Your task to perform on an android device: Search for vegetarian restaurants on Maps Image 0: 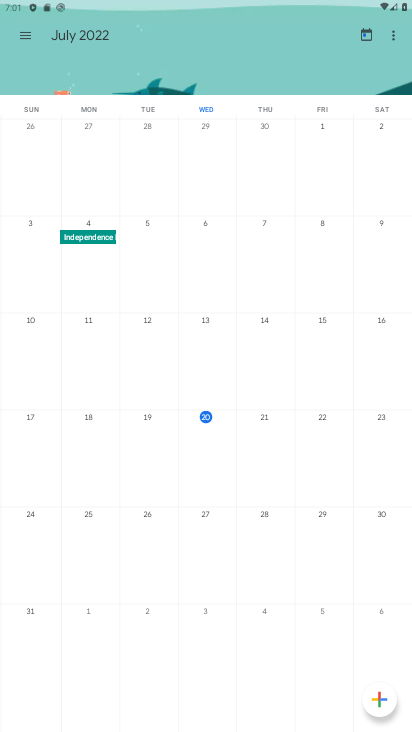
Step 0: press home button
Your task to perform on an android device: Search for vegetarian restaurants on Maps Image 1: 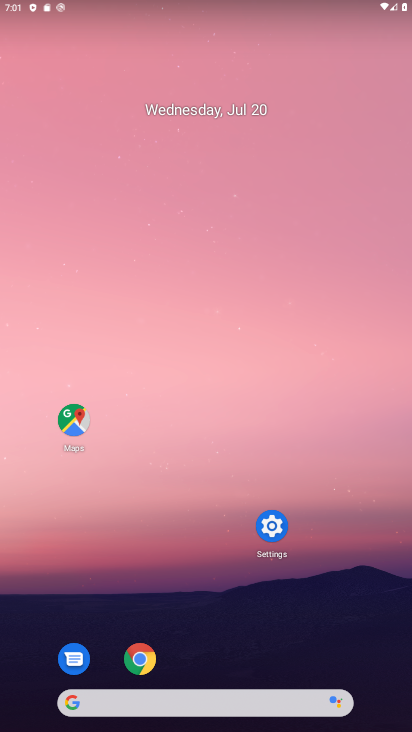
Step 1: click (58, 421)
Your task to perform on an android device: Search for vegetarian restaurants on Maps Image 2: 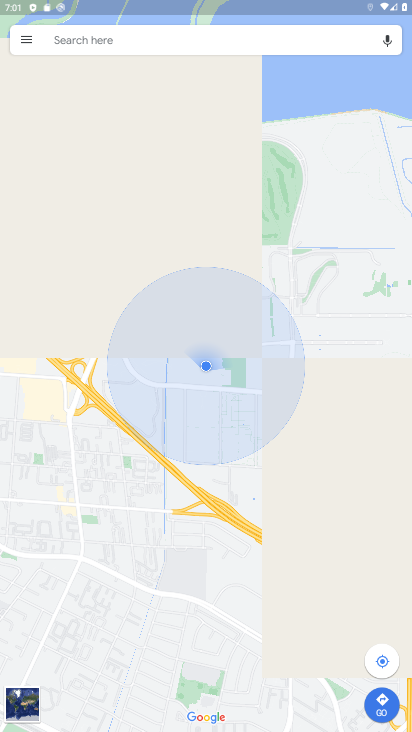
Step 2: click (82, 39)
Your task to perform on an android device: Search for vegetarian restaurants on Maps Image 3: 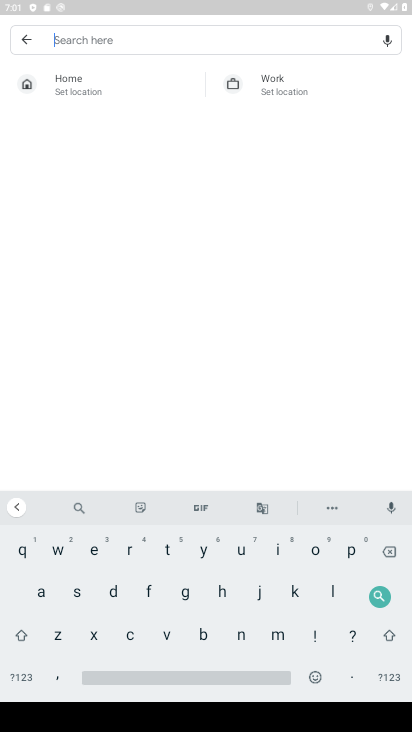
Step 3: click (164, 634)
Your task to perform on an android device: Search for vegetarian restaurants on Maps Image 4: 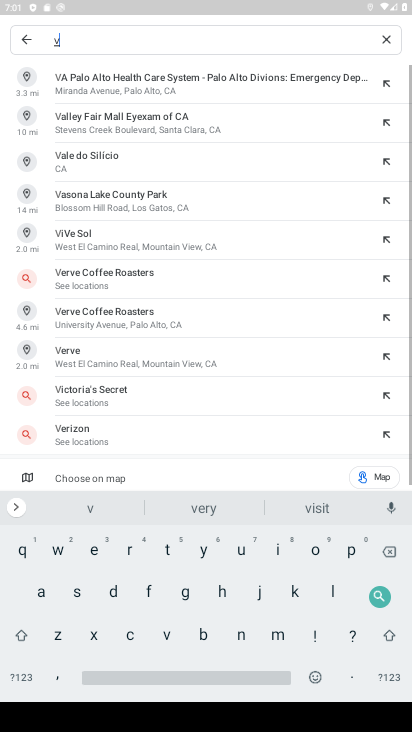
Step 4: click (92, 548)
Your task to perform on an android device: Search for vegetarian restaurants on Maps Image 5: 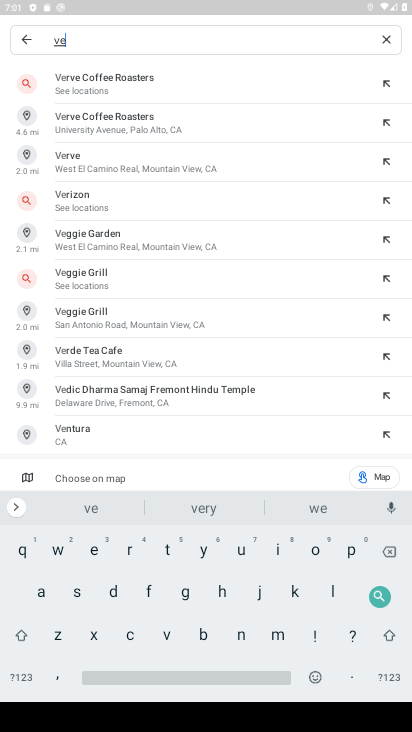
Step 5: click (184, 596)
Your task to perform on an android device: Search for vegetarian restaurants on Maps Image 6: 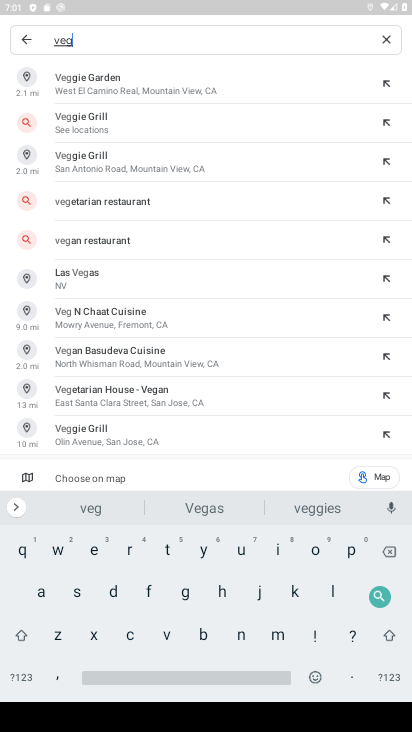
Step 6: click (94, 551)
Your task to perform on an android device: Search for vegetarian restaurants on Maps Image 7: 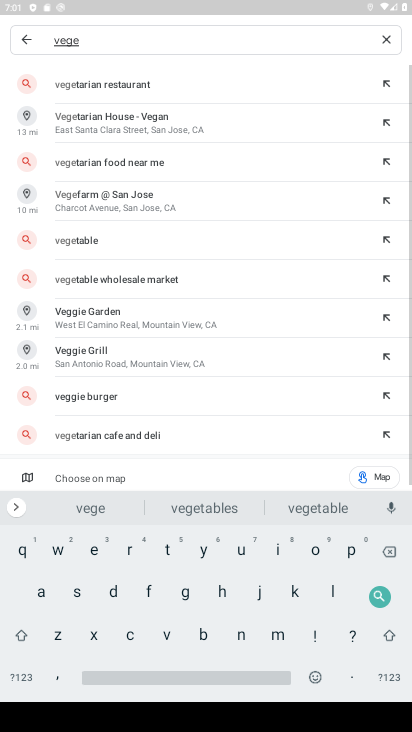
Step 7: click (126, 85)
Your task to perform on an android device: Search for vegetarian restaurants on Maps Image 8: 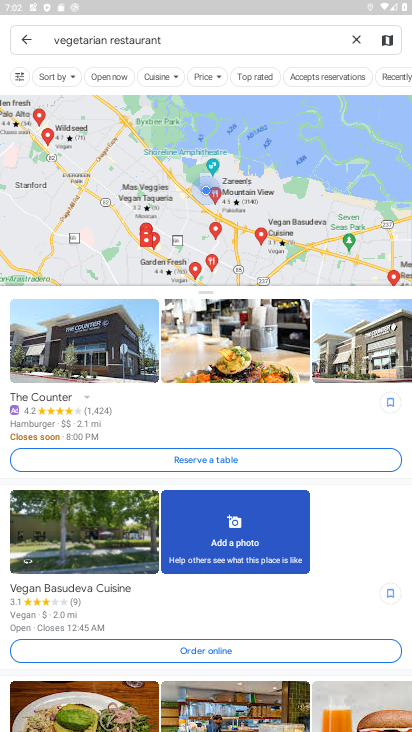
Step 8: task complete